Your task to perform on an android device: Open my contact list Image 0: 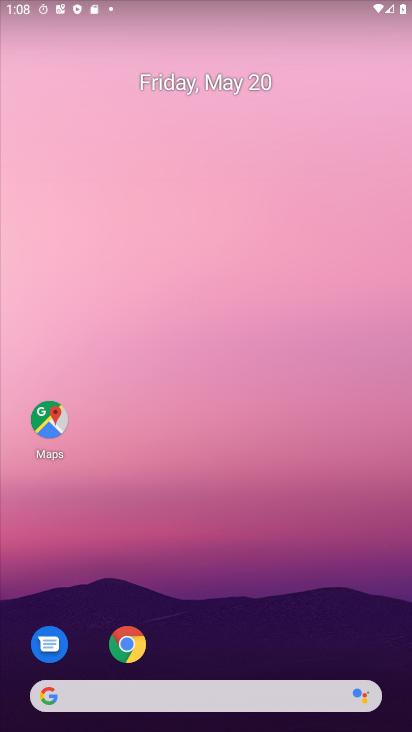
Step 0: drag from (255, 503) to (243, 0)
Your task to perform on an android device: Open my contact list Image 1: 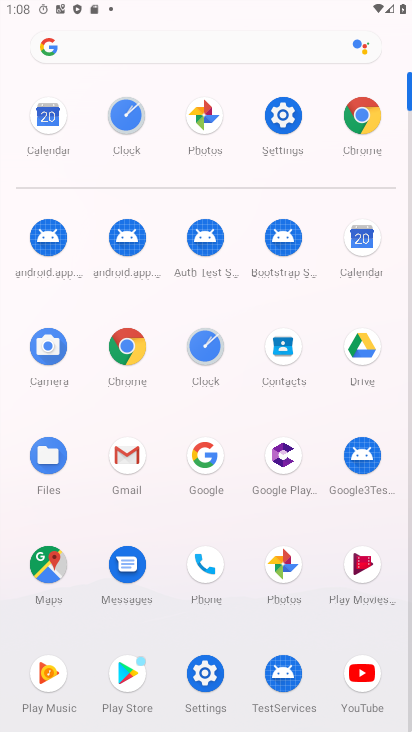
Step 1: click (208, 578)
Your task to perform on an android device: Open my contact list Image 2: 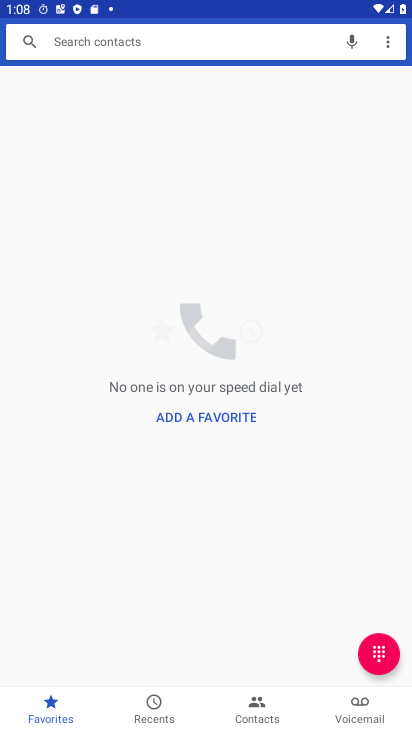
Step 2: click (238, 705)
Your task to perform on an android device: Open my contact list Image 3: 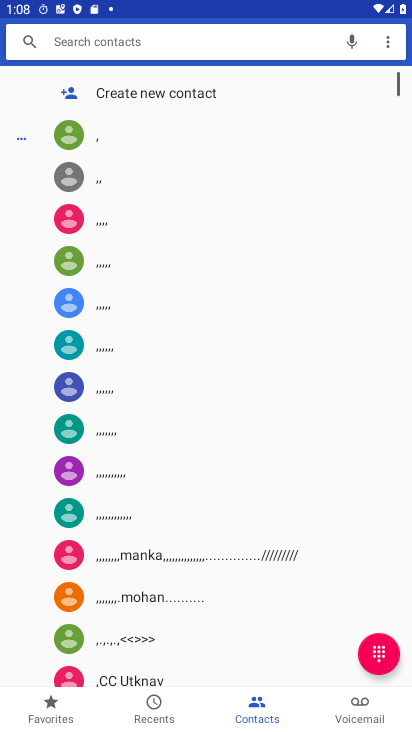
Step 3: task complete